Your task to perform on an android device: toggle translation in the chrome app Image 0: 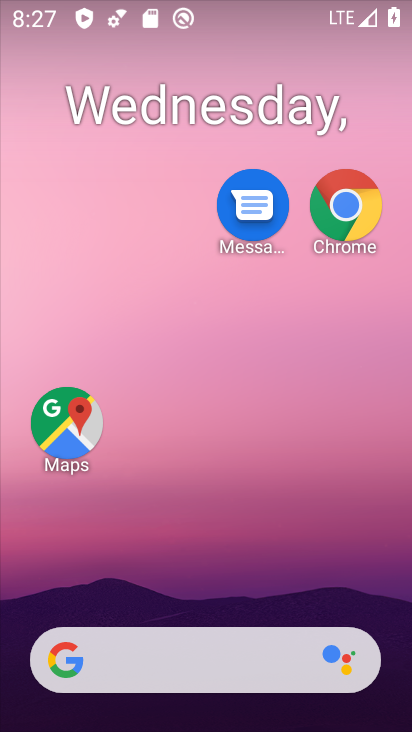
Step 0: drag from (200, 574) to (206, 50)
Your task to perform on an android device: toggle translation in the chrome app Image 1: 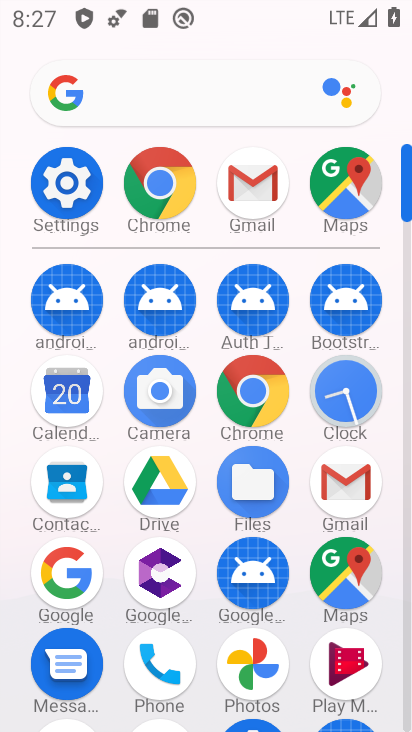
Step 1: click (252, 384)
Your task to perform on an android device: toggle translation in the chrome app Image 2: 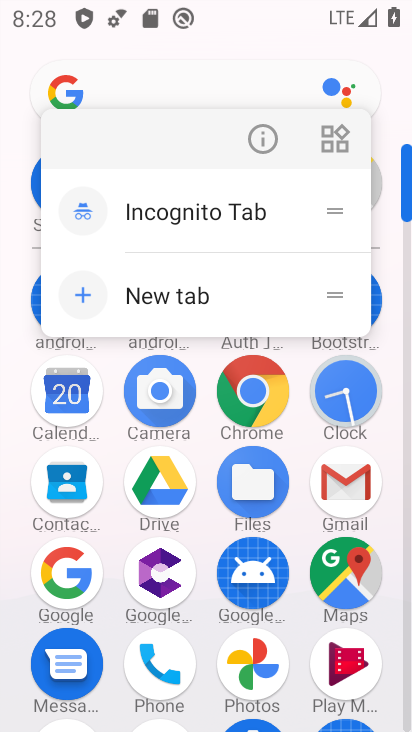
Step 2: click (274, 141)
Your task to perform on an android device: toggle translation in the chrome app Image 3: 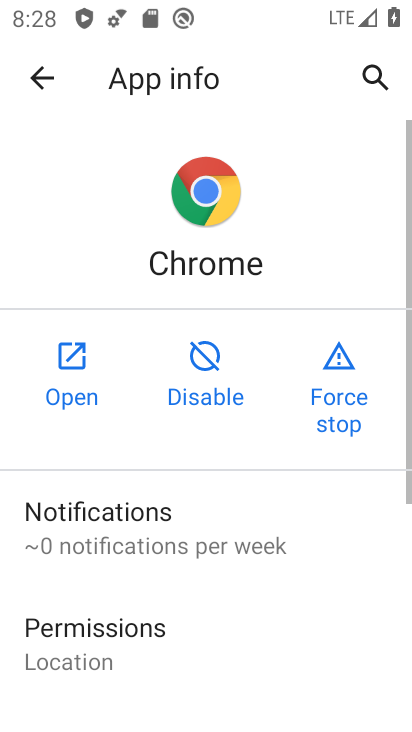
Step 3: click (73, 371)
Your task to perform on an android device: toggle translation in the chrome app Image 4: 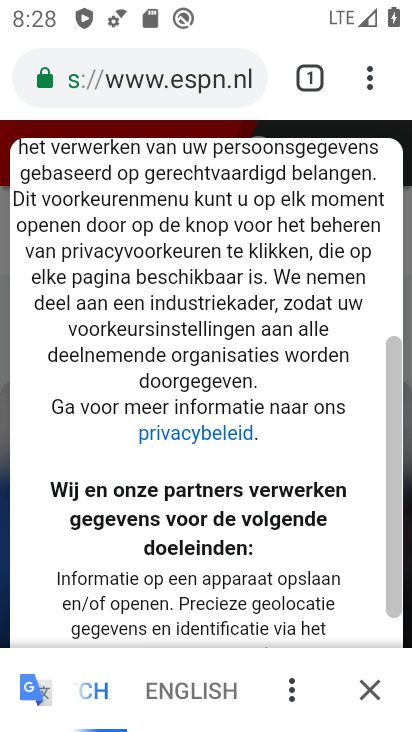
Step 4: drag from (375, 82) to (119, 606)
Your task to perform on an android device: toggle translation in the chrome app Image 5: 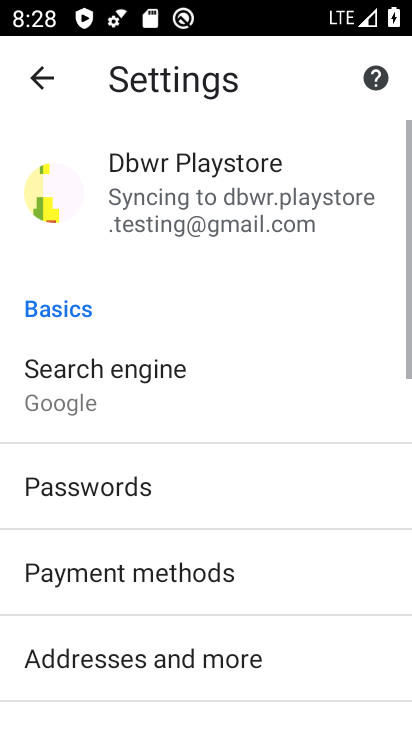
Step 5: drag from (140, 586) to (252, 57)
Your task to perform on an android device: toggle translation in the chrome app Image 6: 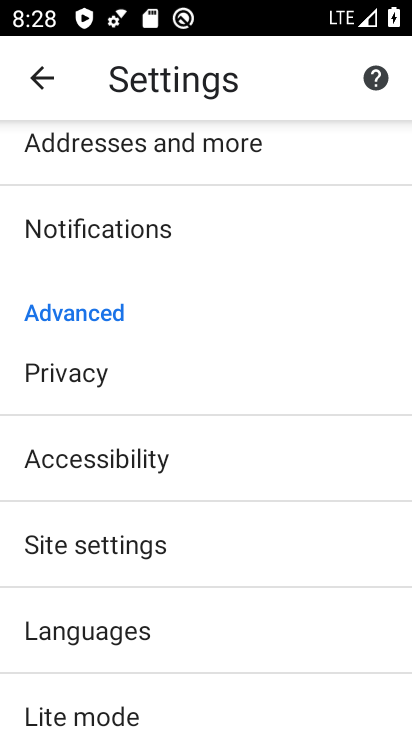
Step 6: drag from (142, 629) to (305, 245)
Your task to perform on an android device: toggle translation in the chrome app Image 7: 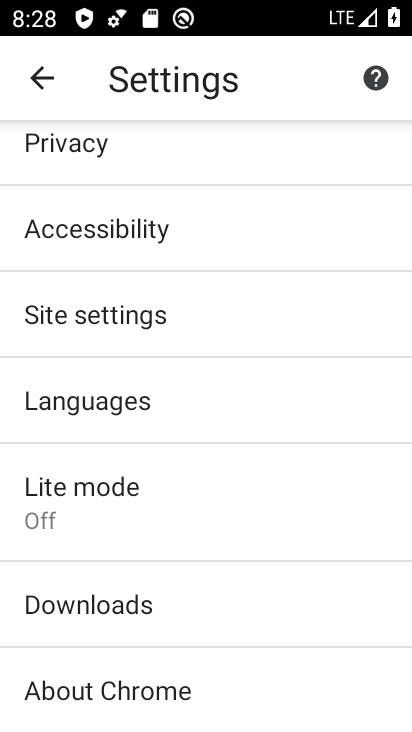
Step 7: drag from (91, 322) to (363, 103)
Your task to perform on an android device: toggle translation in the chrome app Image 8: 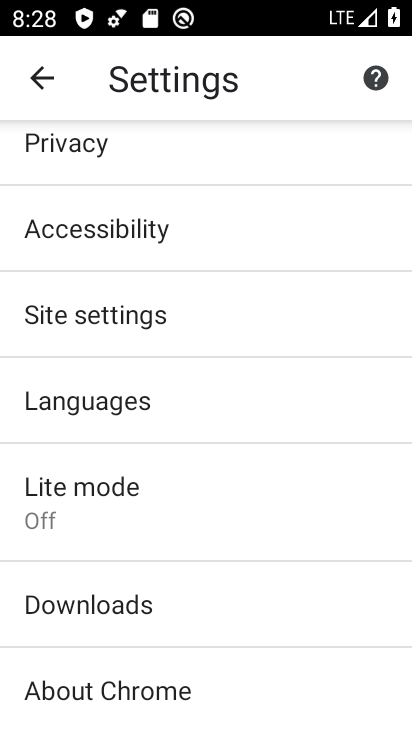
Step 8: click (122, 387)
Your task to perform on an android device: toggle translation in the chrome app Image 9: 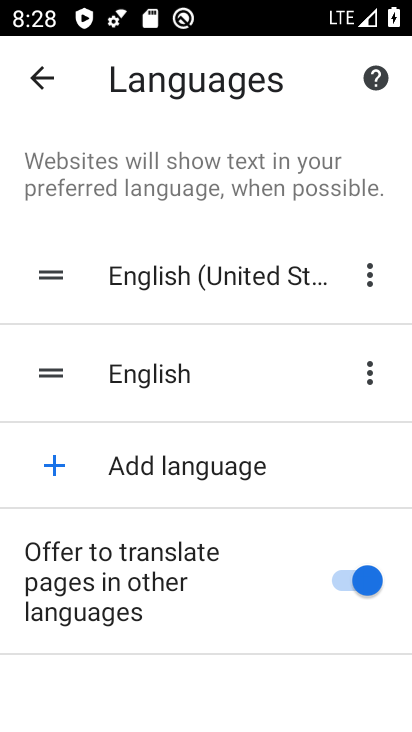
Step 9: drag from (176, 551) to (292, 259)
Your task to perform on an android device: toggle translation in the chrome app Image 10: 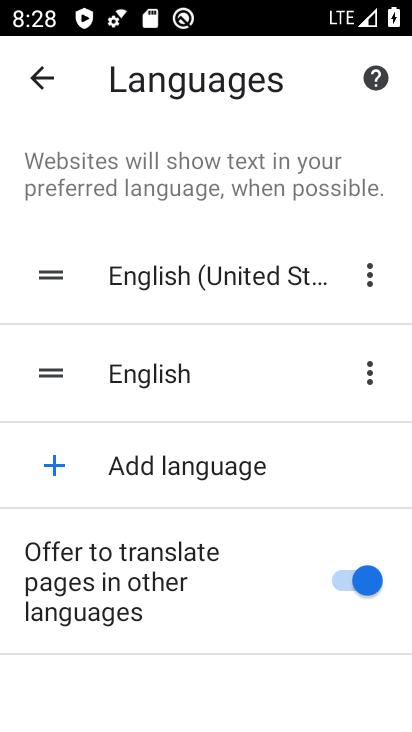
Step 10: click (272, 579)
Your task to perform on an android device: toggle translation in the chrome app Image 11: 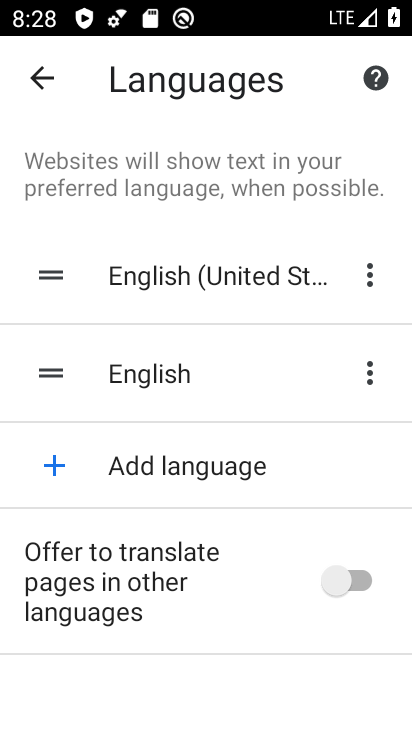
Step 11: task complete